Your task to perform on an android device: see tabs open on other devices in the chrome app Image 0: 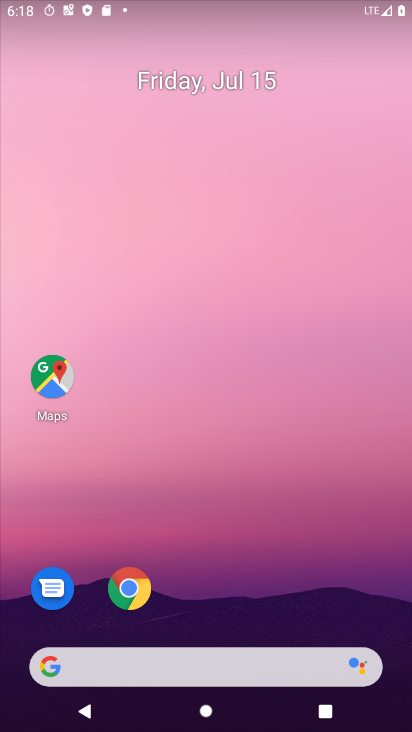
Step 0: click (331, 8)
Your task to perform on an android device: see tabs open on other devices in the chrome app Image 1: 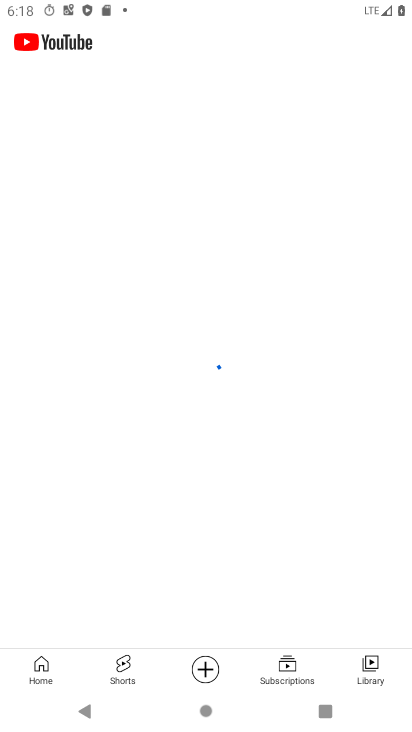
Step 1: press home button
Your task to perform on an android device: see tabs open on other devices in the chrome app Image 2: 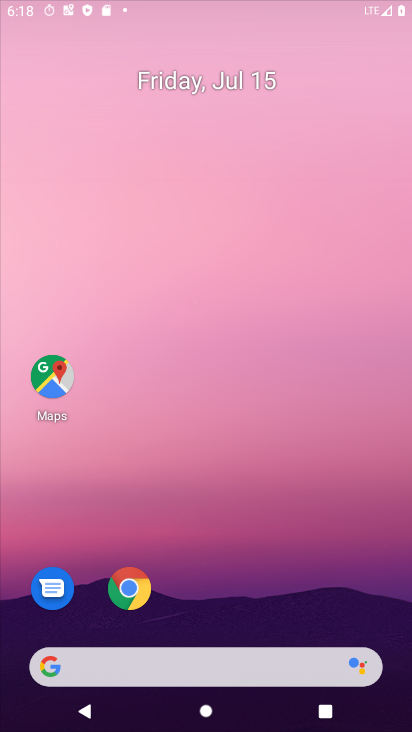
Step 2: drag from (196, 607) to (184, 23)
Your task to perform on an android device: see tabs open on other devices in the chrome app Image 3: 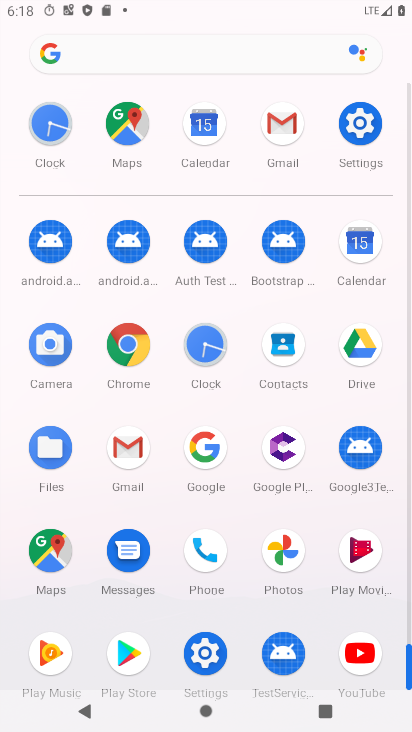
Step 3: click (121, 335)
Your task to perform on an android device: see tabs open on other devices in the chrome app Image 4: 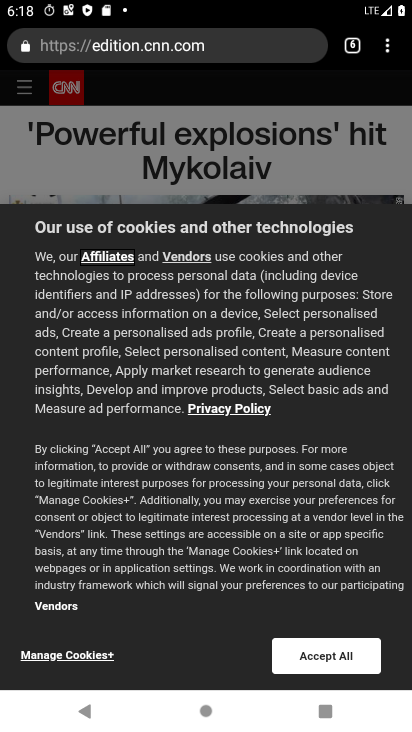
Step 4: click (380, 52)
Your task to perform on an android device: see tabs open on other devices in the chrome app Image 5: 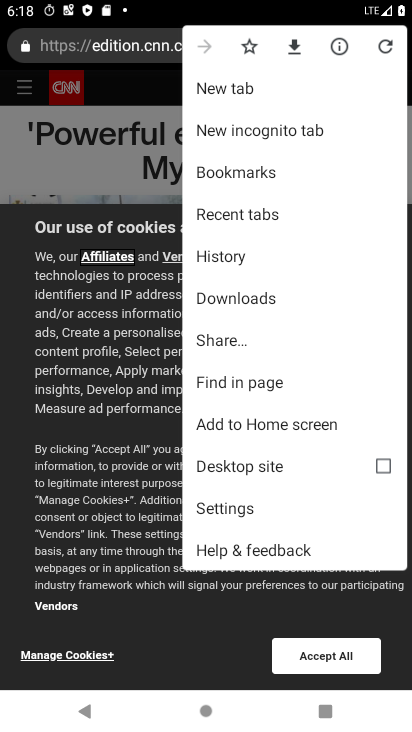
Step 5: click (252, 211)
Your task to perform on an android device: see tabs open on other devices in the chrome app Image 6: 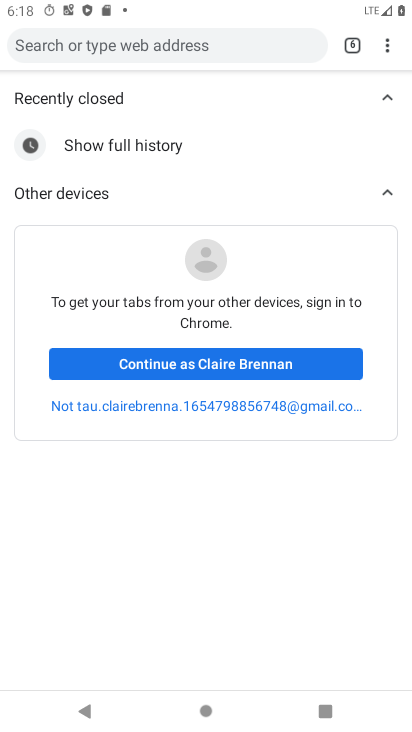
Step 6: task complete